Your task to perform on an android device: Go to wifi settings Image 0: 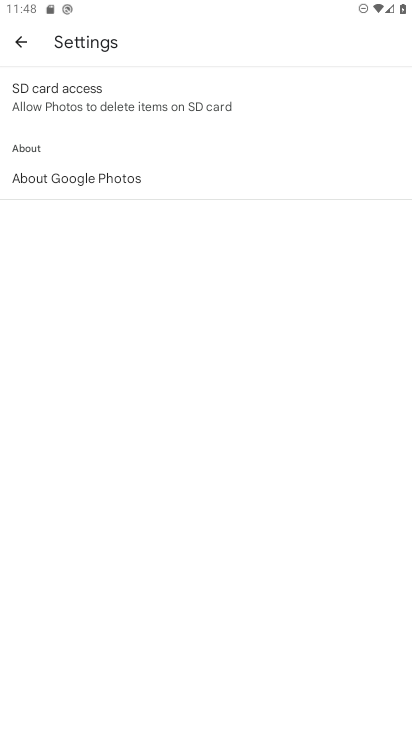
Step 0: press home button
Your task to perform on an android device: Go to wifi settings Image 1: 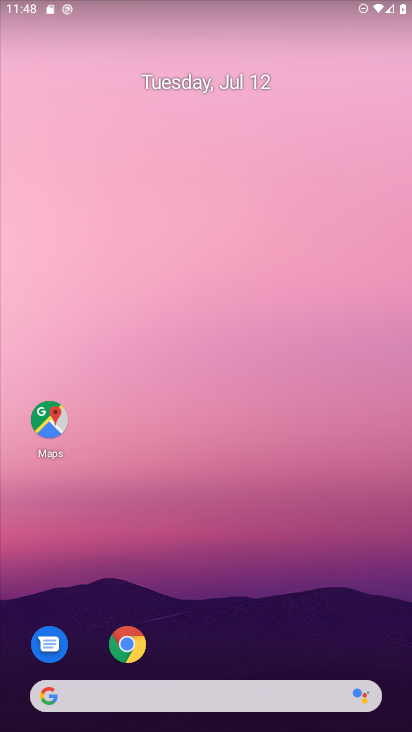
Step 1: drag from (174, 723) to (375, 348)
Your task to perform on an android device: Go to wifi settings Image 2: 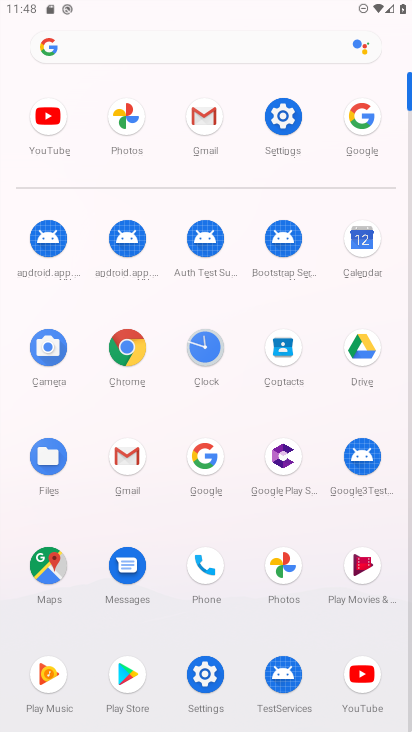
Step 2: click (276, 121)
Your task to perform on an android device: Go to wifi settings Image 3: 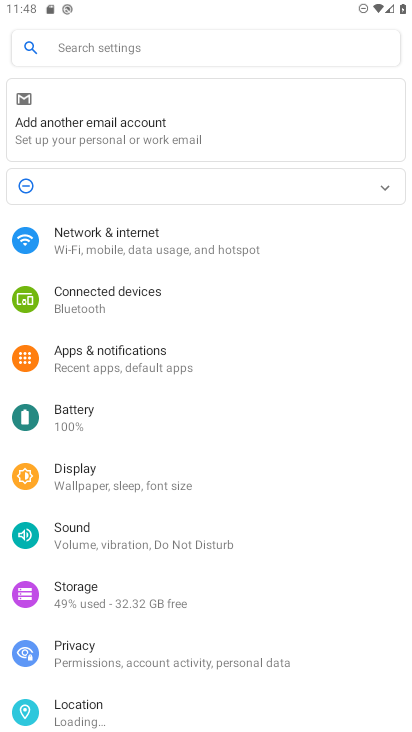
Step 3: click (206, 243)
Your task to perform on an android device: Go to wifi settings Image 4: 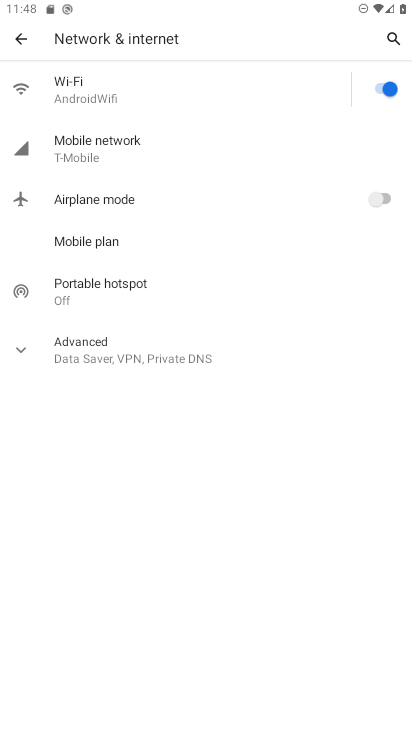
Step 4: click (77, 92)
Your task to perform on an android device: Go to wifi settings Image 5: 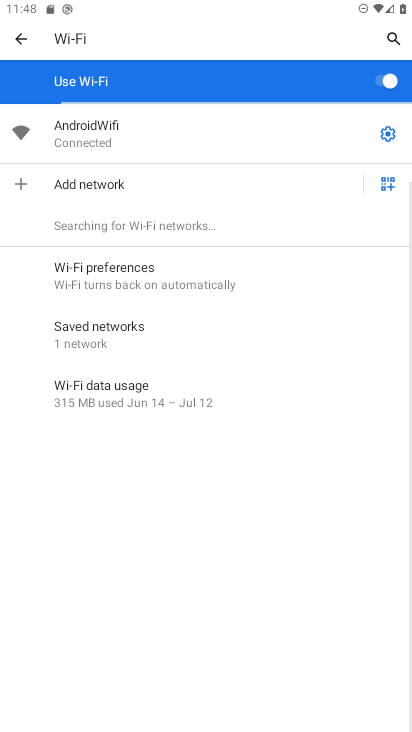
Step 5: click (386, 136)
Your task to perform on an android device: Go to wifi settings Image 6: 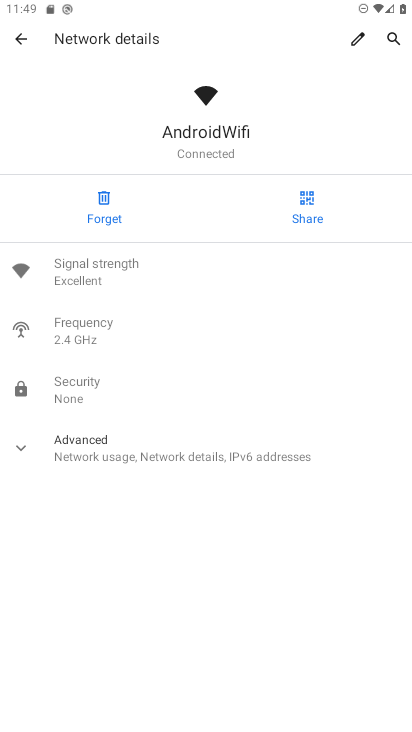
Step 6: task complete